Your task to perform on an android device: turn on the 12-hour format for clock Image 0: 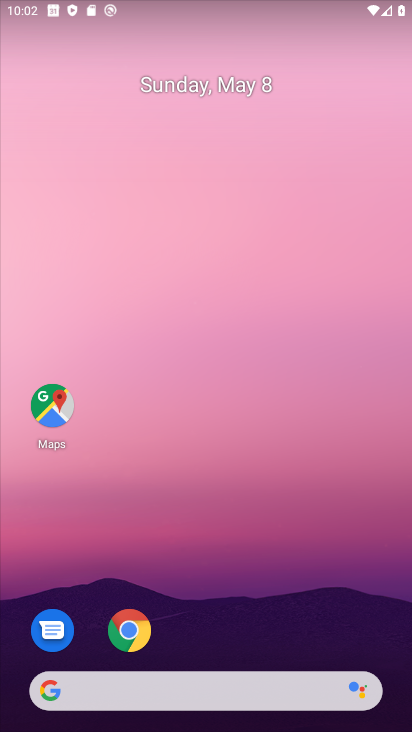
Step 0: drag from (201, 731) to (194, 219)
Your task to perform on an android device: turn on the 12-hour format for clock Image 1: 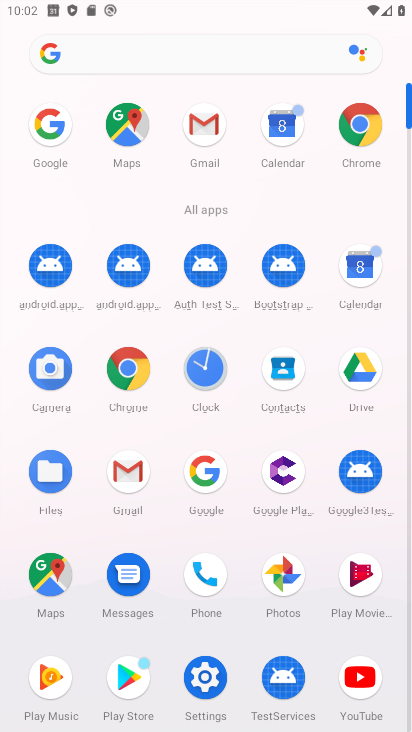
Step 1: click (205, 369)
Your task to perform on an android device: turn on the 12-hour format for clock Image 2: 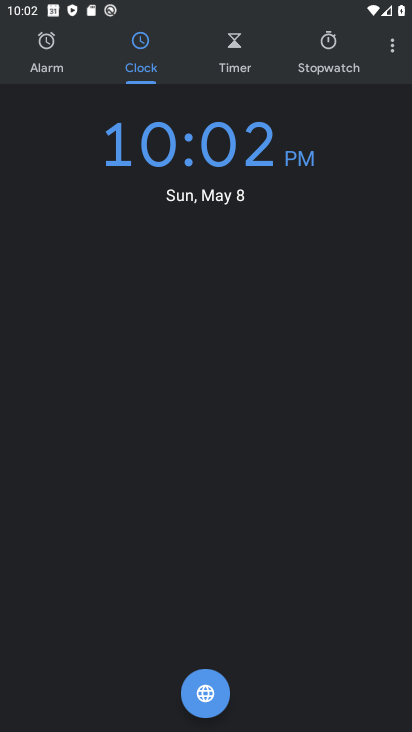
Step 2: click (394, 46)
Your task to perform on an android device: turn on the 12-hour format for clock Image 3: 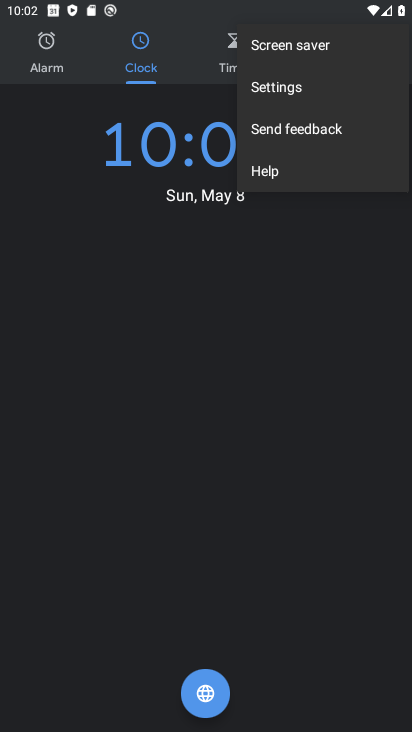
Step 3: click (271, 85)
Your task to perform on an android device: turn on the 12-hour format for clock Image 4: 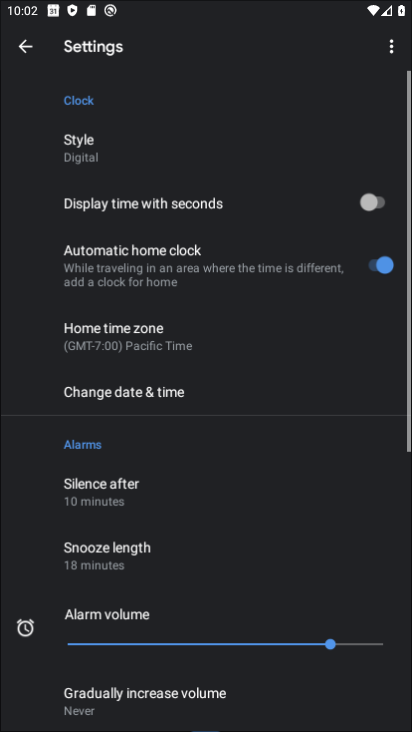
Step 4: click (271, 85)
Your task to perform on an android device: turn on the 12-hour format for clock Image 5: 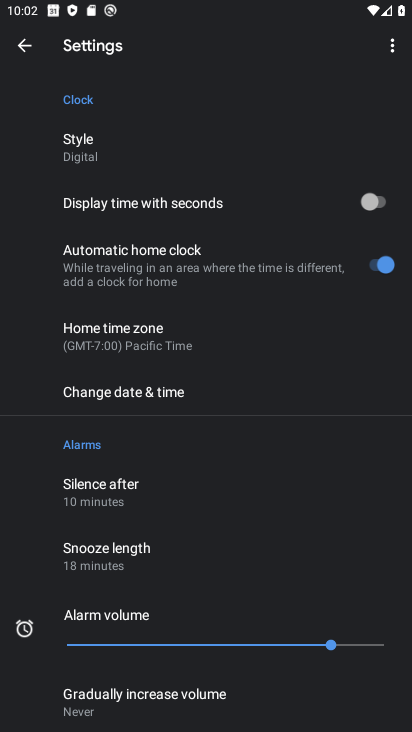
Step 5: drag from (215, 609) to (213, 266)
Your task to perform on an android device: turn on the 12-hour format for clock Image 6: 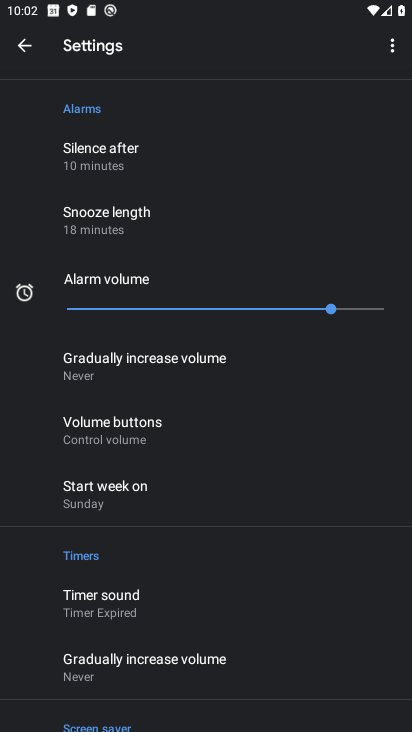
Step 6: click (174, 599)
Your task to perform on an android device: turn on the 12-hour format for clock Image 7: 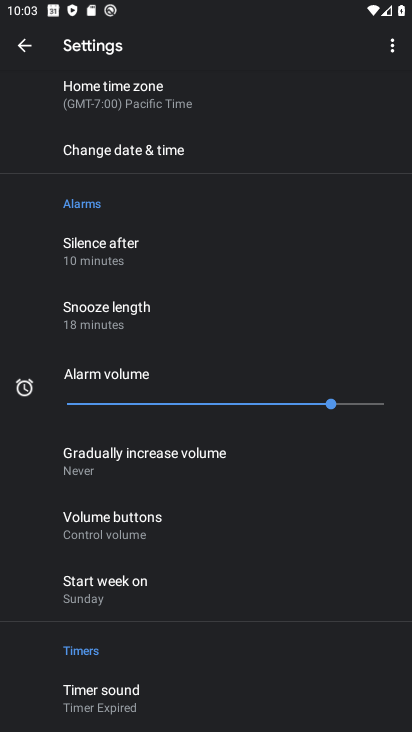
Step 7: drag from (228, 113) to (228, 212)
Your task to perform on an android device: turn on the 12-hour format for clock Image 8: 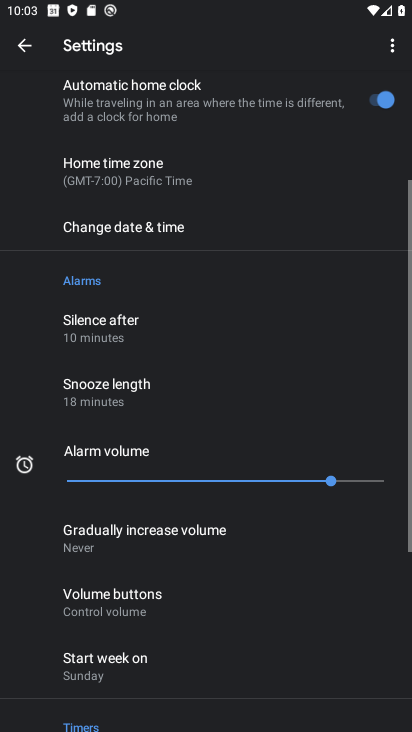
Step 8: click (144, 216)
Your task to perform on an android device: turn on the 12-hour format for clock Image 9: 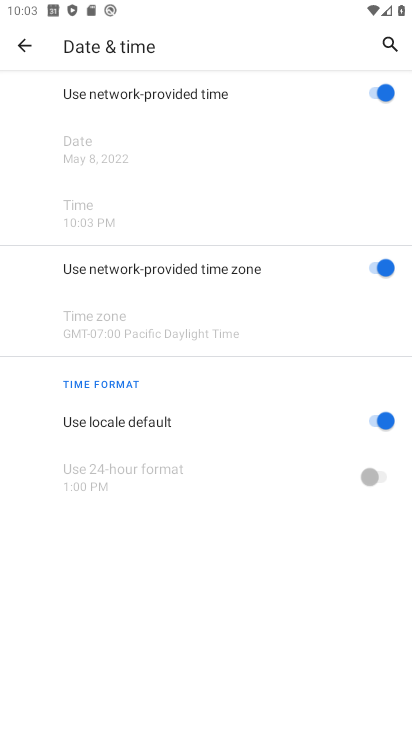
Step 9: task complete